Your task to perform on an android device: Search for sushi restaurants on Maps Image 0: 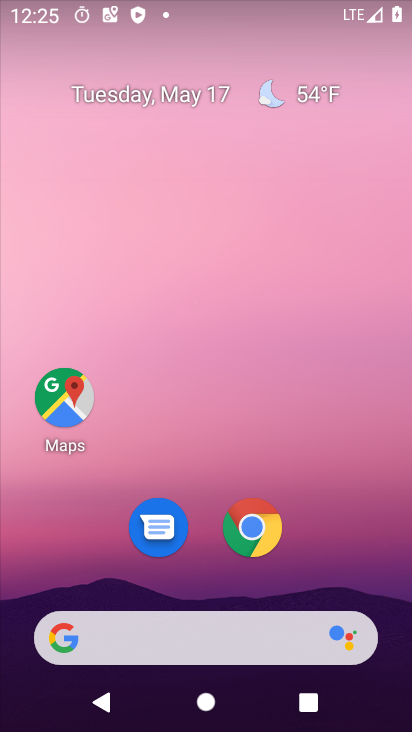
Step 0: drag from (271, 656) to (262, 46)
Your task to perform on an android device: Search for sushi restaurants on Maps Image 1: 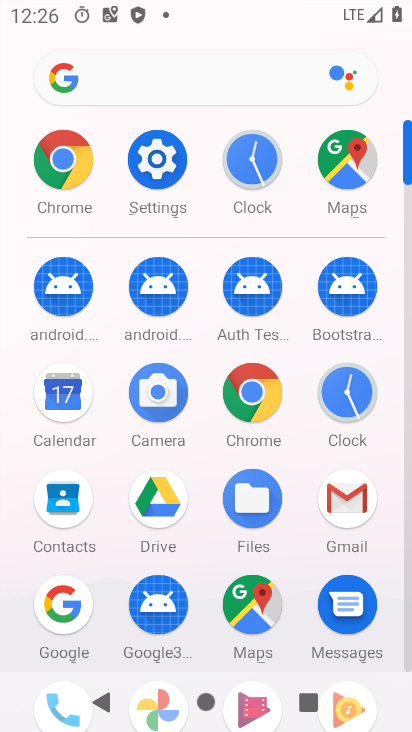
Step 1: click (248, 592)
Your task to perform on an android device: Search for sushi restaurants on Maps Image 2: 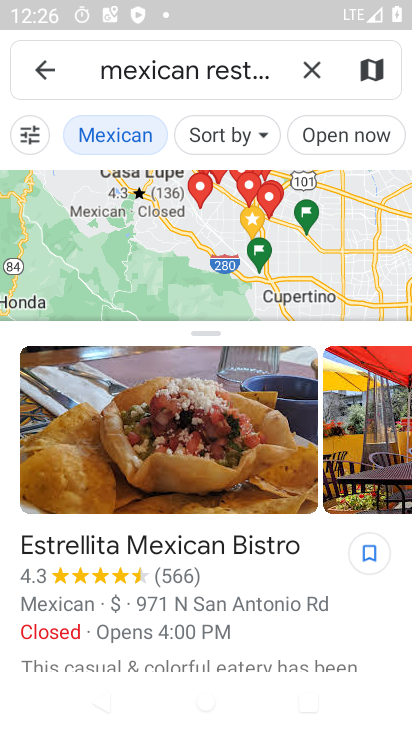
Step 2: click (308, 68)
Your task to perform on an android device: Search for sushi restaurants on Maps Image 3: 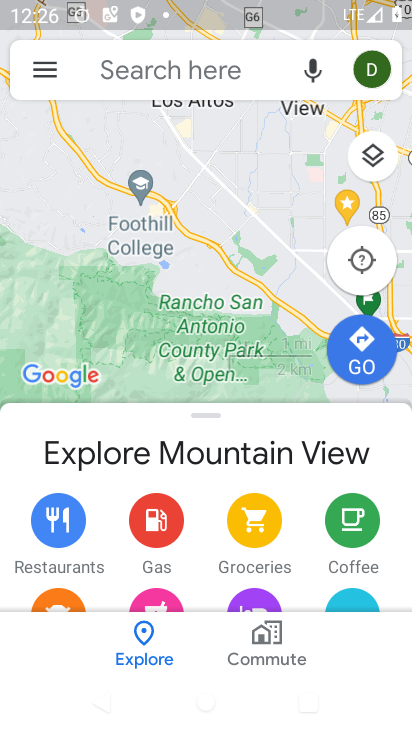
Step 3: click (144, 79)
Your task to perform on an android device: Search for sushi restaurants on Maps Image 4: 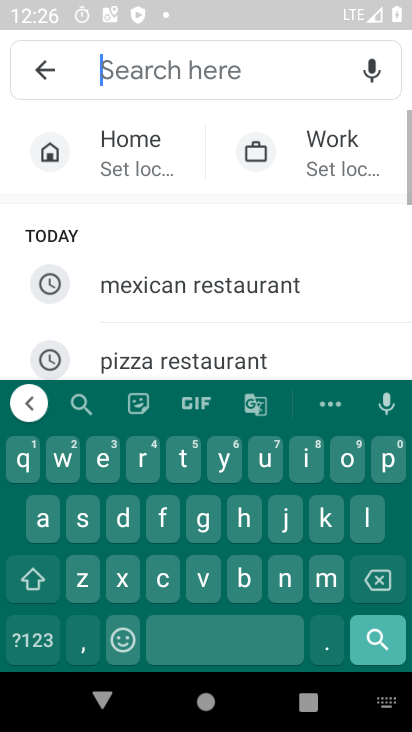
Step 4: click (83, 506)
Your task to perform on an android device: Search for sushi restaurants on Maps Image 5: 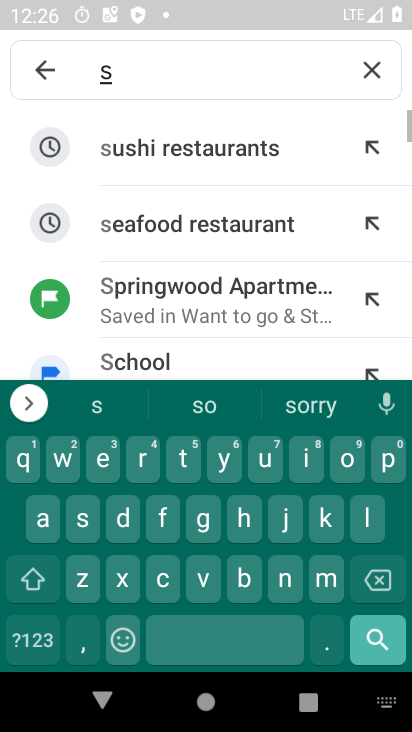
Step 5: click (159, 151)
Your task to perform on an android device: Search for sushi restaurants on Maps Image 6: 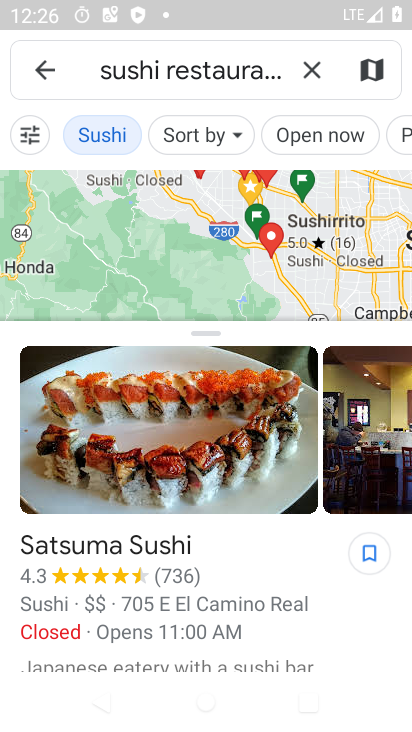
Step 6: click (105, 254)
Your task to perform on an android device: Search for sushi restaurants on Maps Image 7: 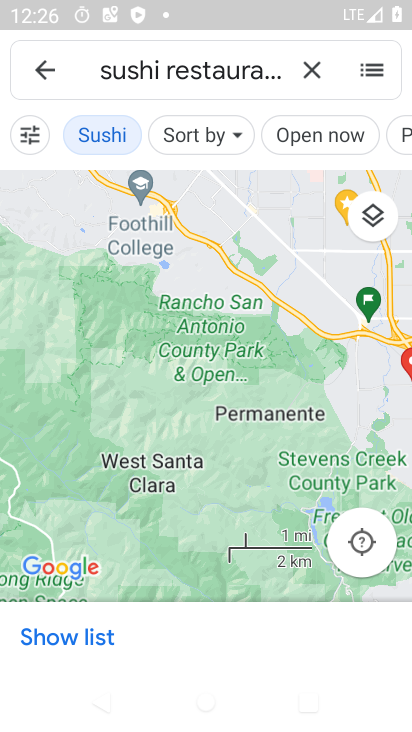
Step 7: task complete